Your task to perform on an android device: Open Reddit.com Image 0: 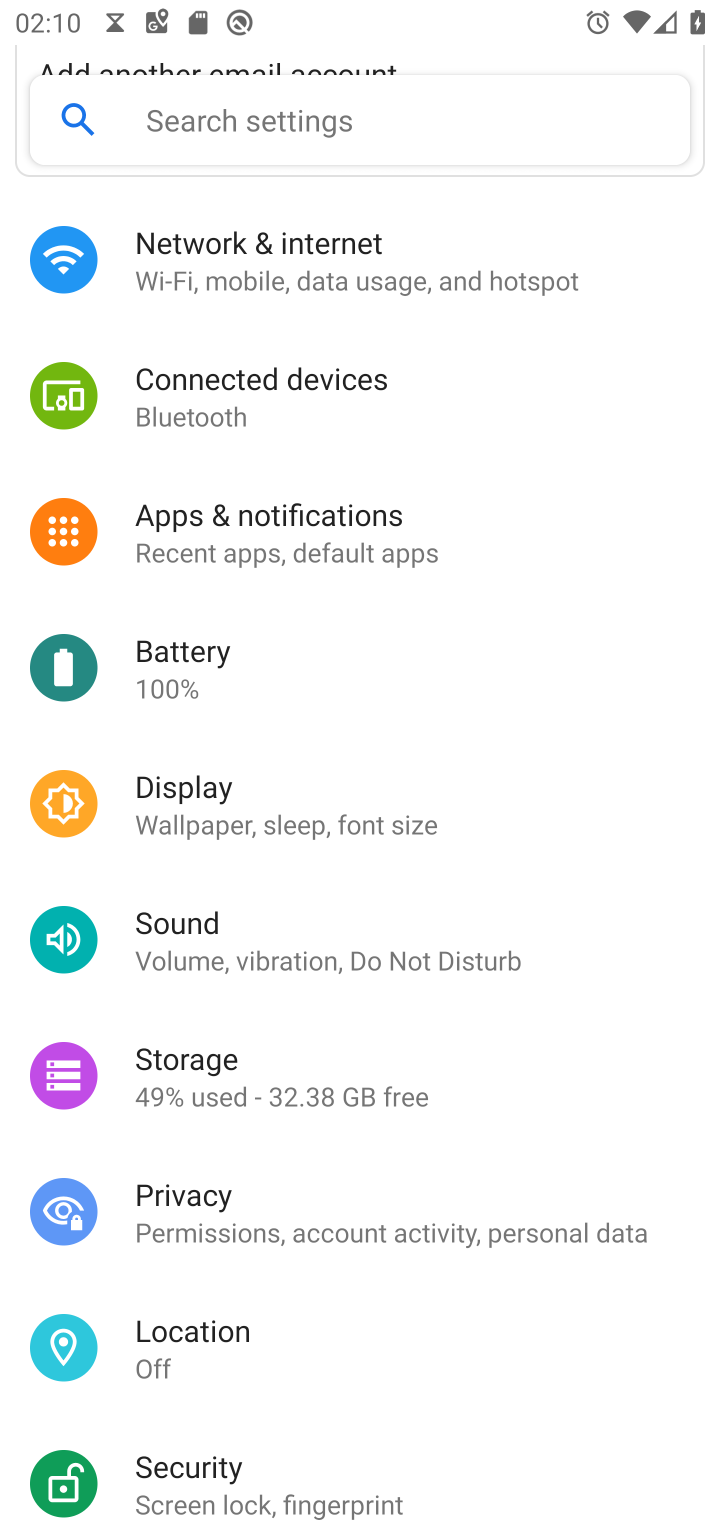
Step 0: press home button
Your task to perform on an android device: Open Reddit.com Image 1: 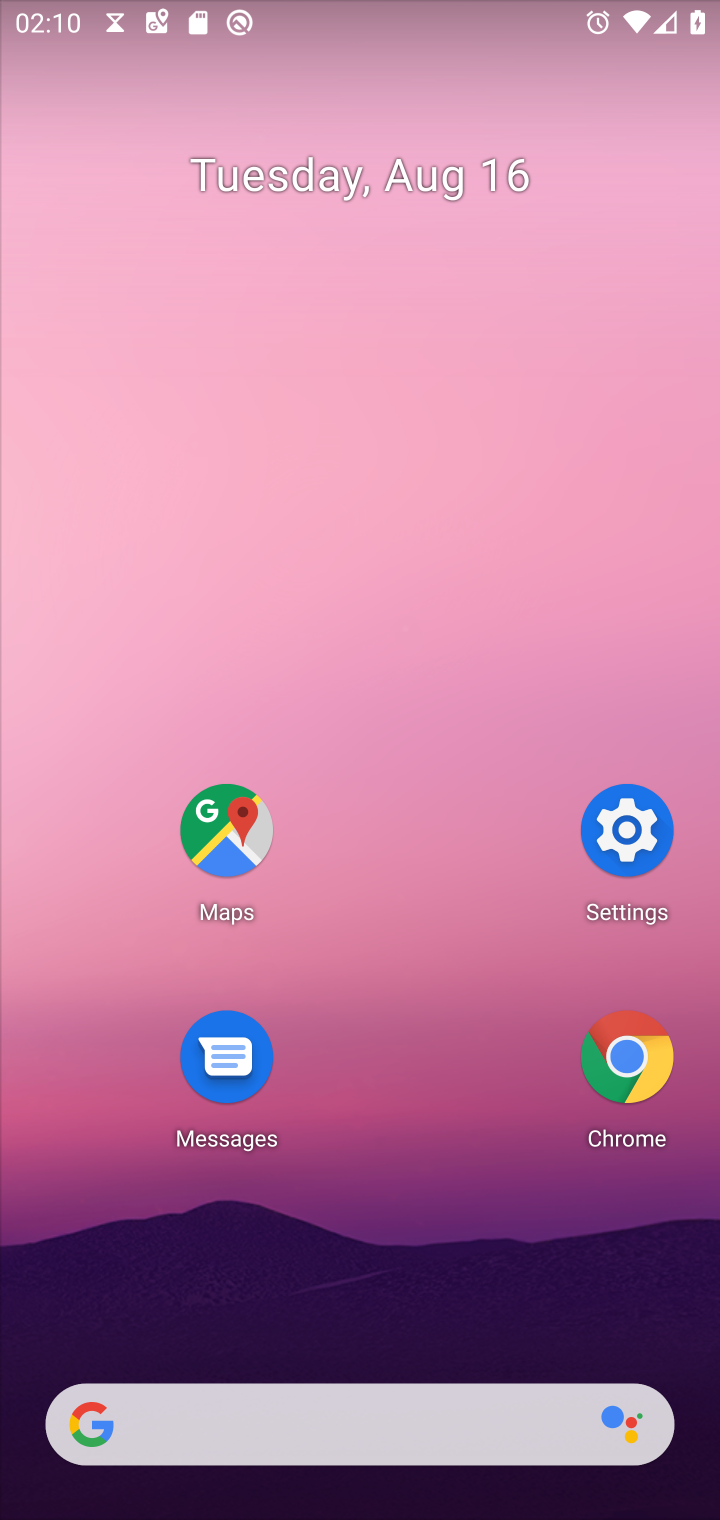
Step 1: click (646, 1044)
Your task to perform on an android device: Open Reddit.com Image 2: 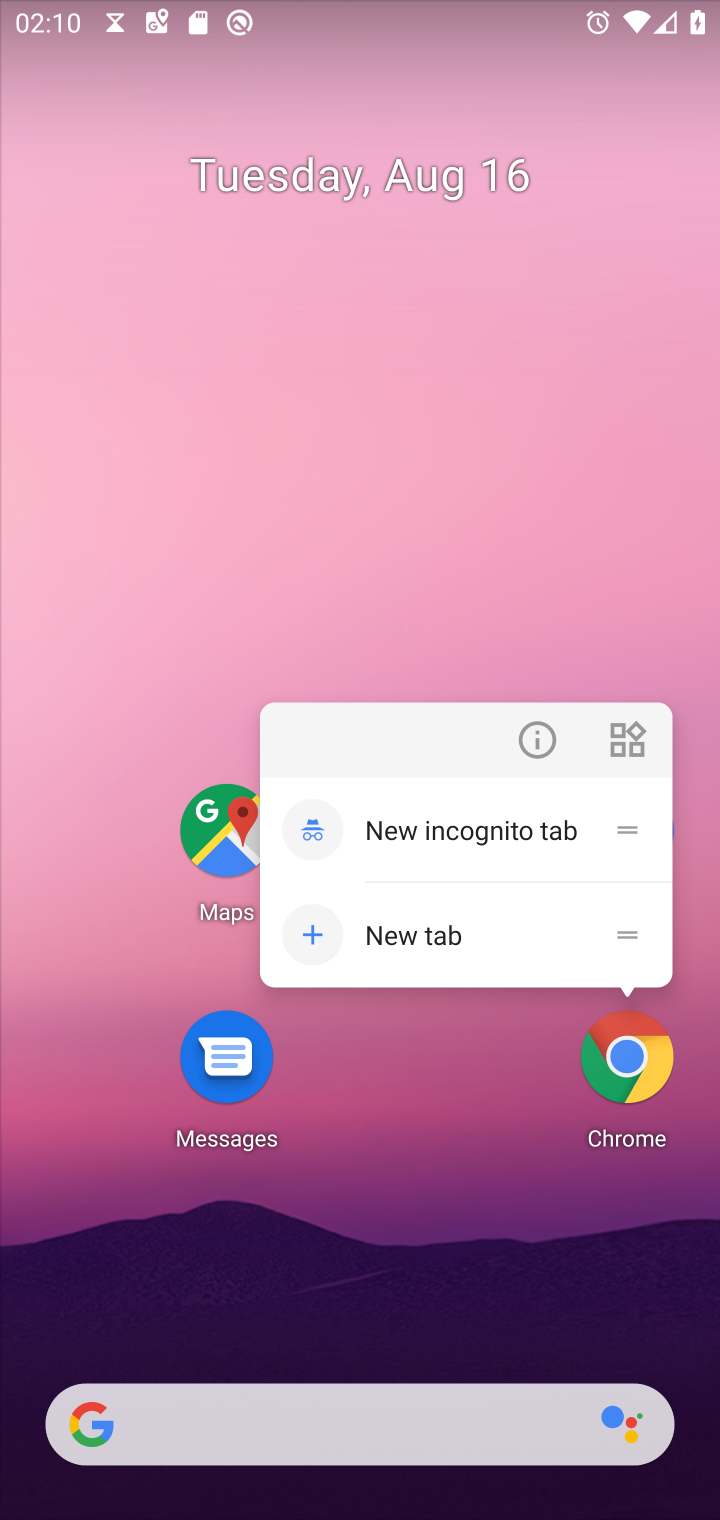
Step 2: click (646, 1047)
Your task to perform on an android device: Open Reddit.com Image 3: 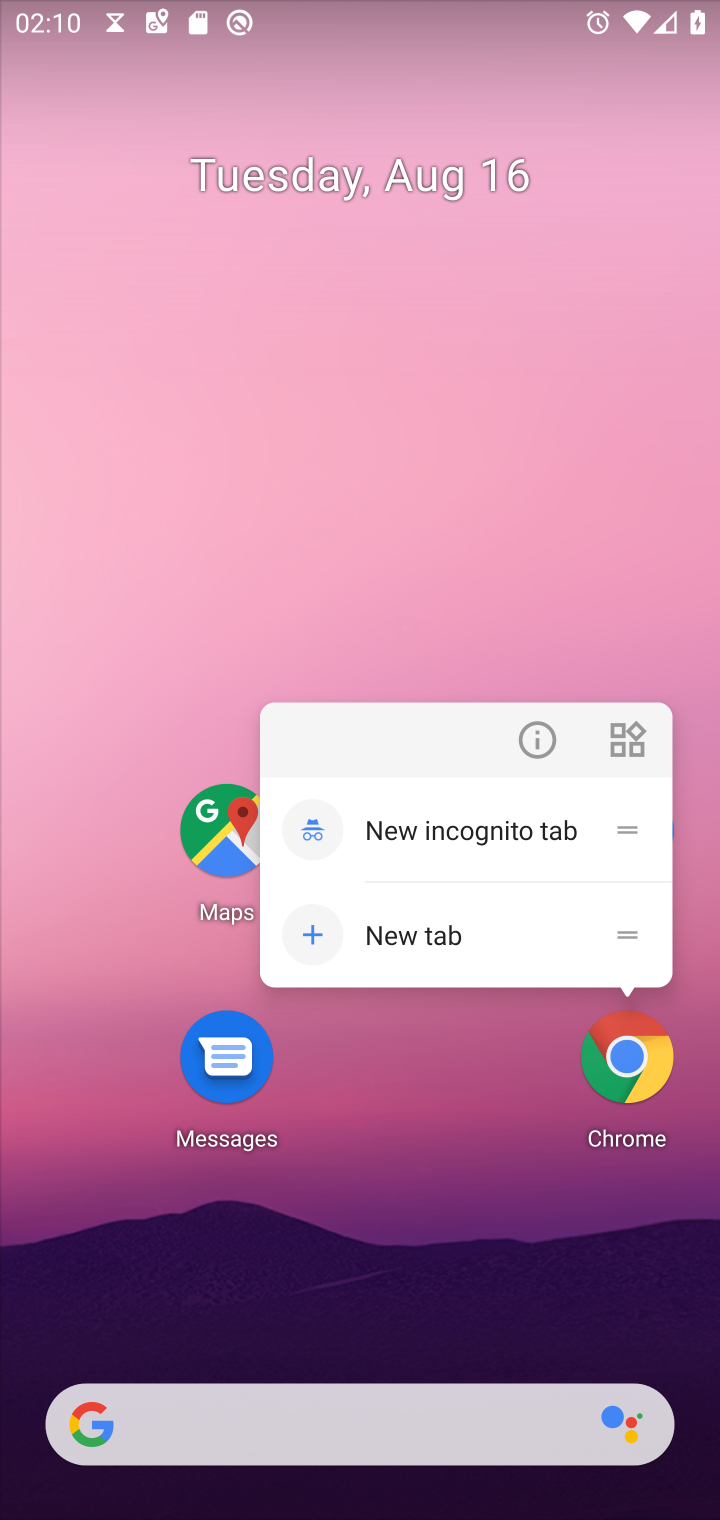
Step 3: click (617, 1058)
Your task to perform on an android device: Open Reddit.com Image 4: 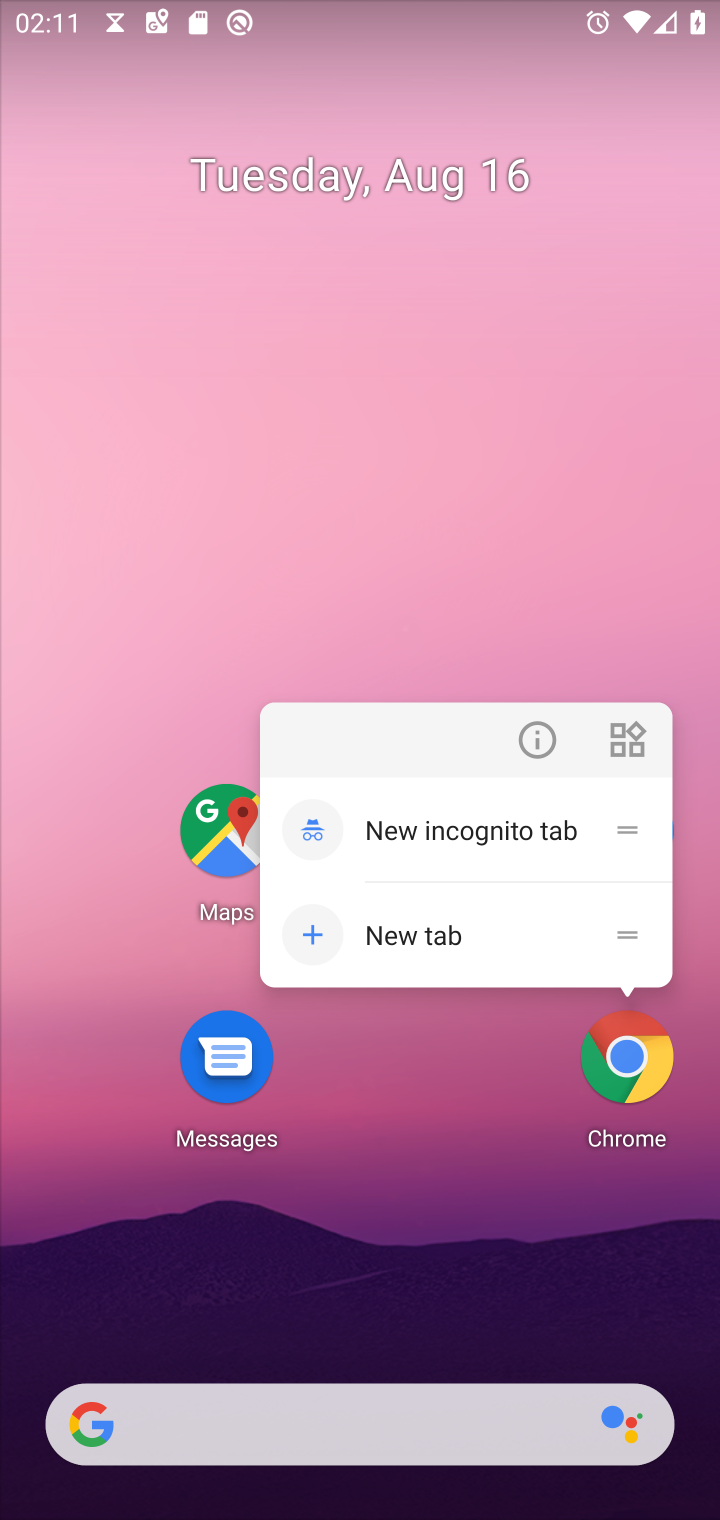
Step 4: click (641, 1059)
Your task to perform on an android device: Open Reddit.com Image 5: 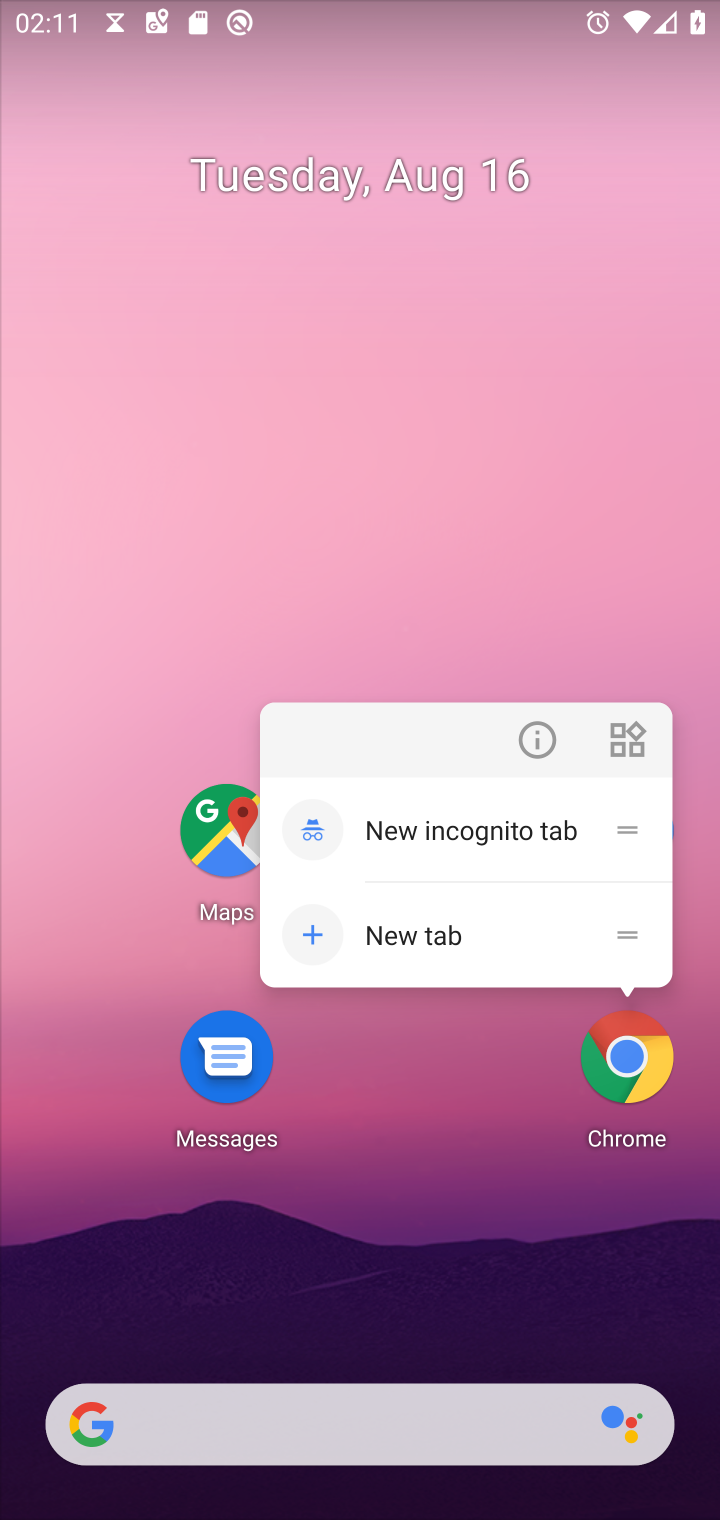
Step 5: click (625, 1086)
Your task to perform on an android device: Open Reddit.com Image 6: 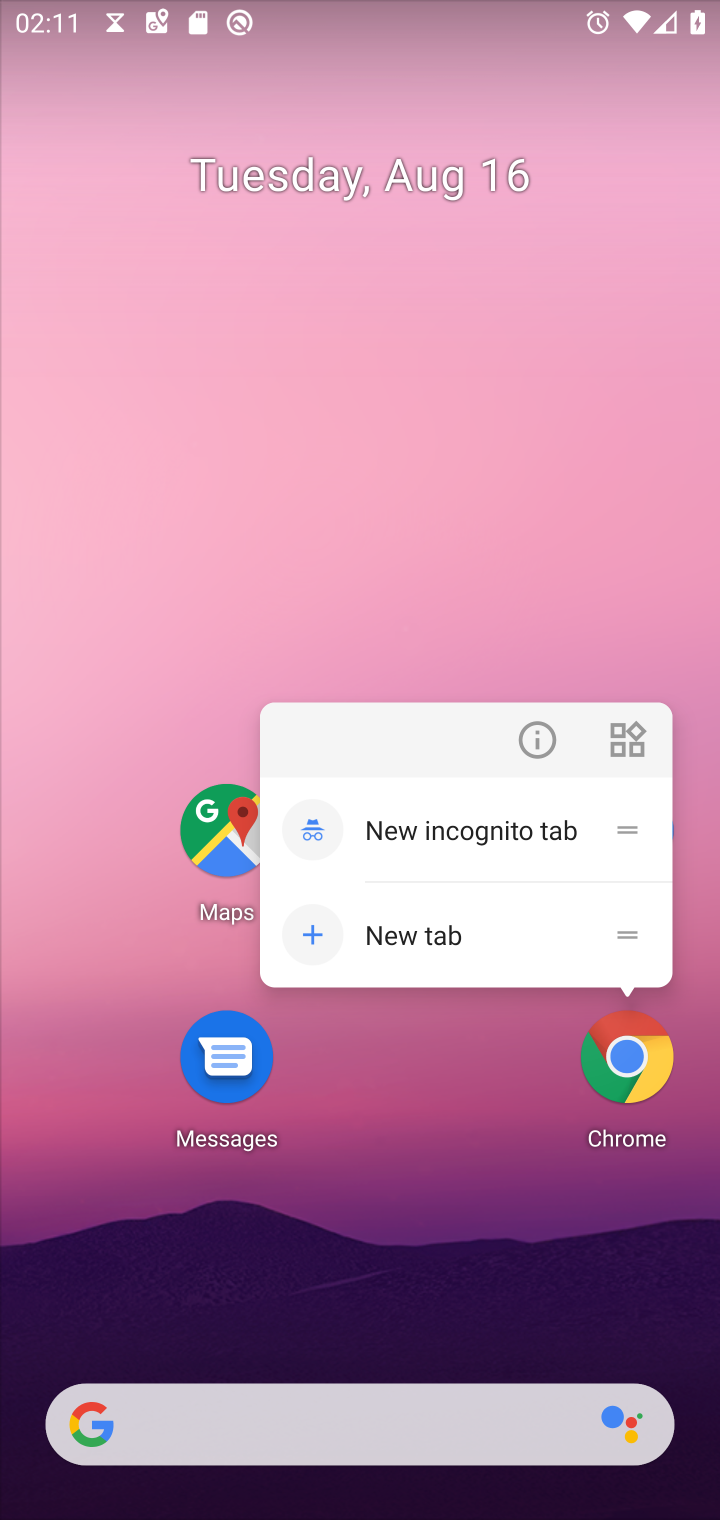
Step 6: click (632, 1062)
Your task to perform on an android device: Open Reddit.com Image 7: 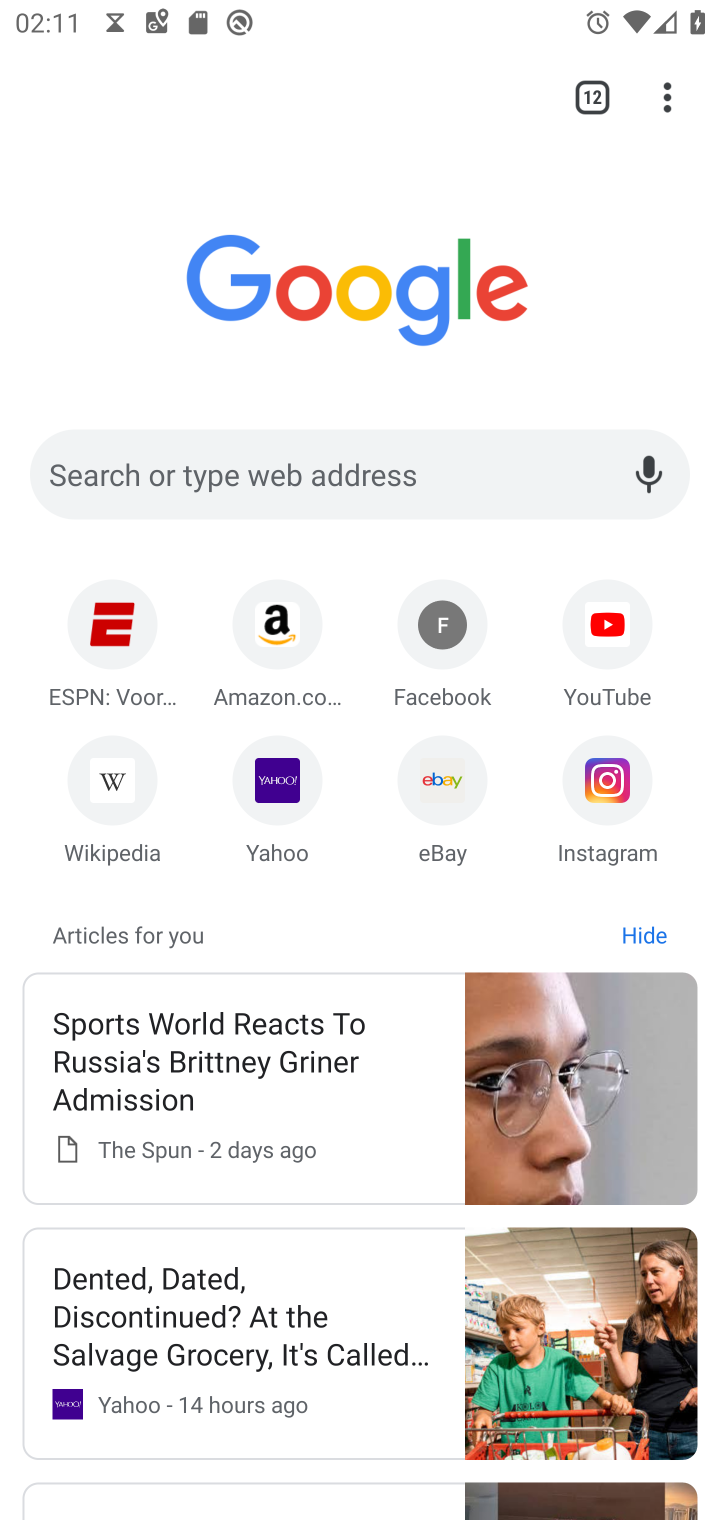
Step 7: drag from (669, 86) to (364, 192)
Your task to perform on an android device: Open Reddit.com Image 8: 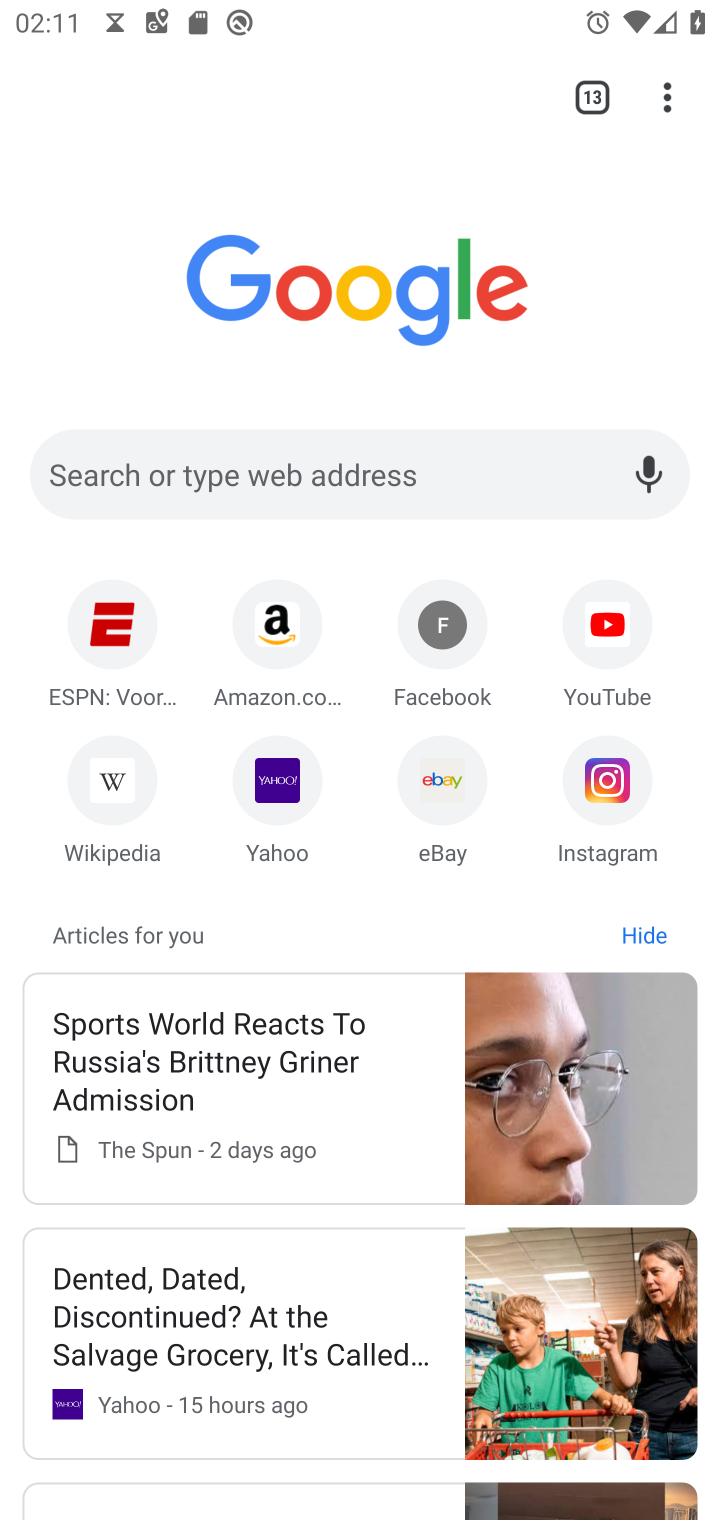
Step 8: click (124, 465)
Your task to perform on an android device: Open Reddit.com Image 9: 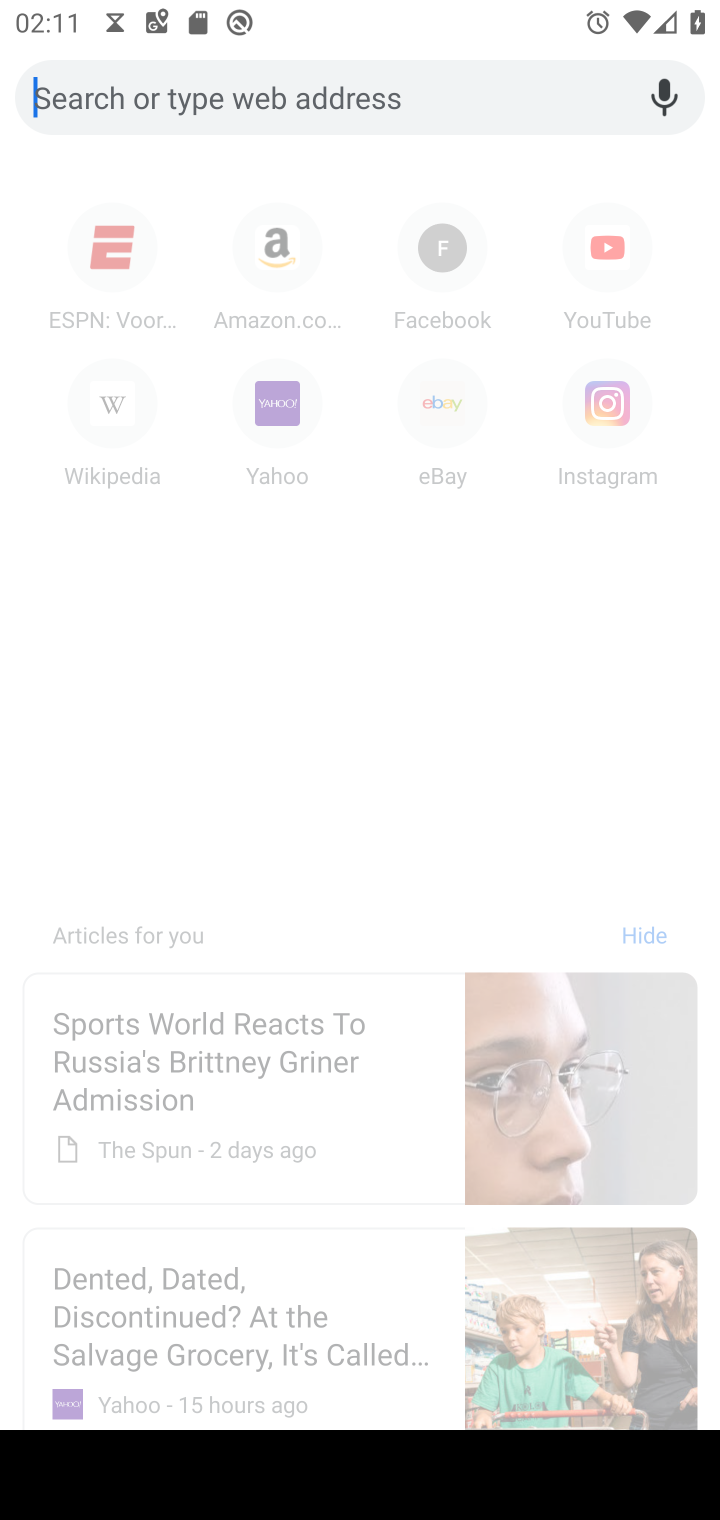
Step 9: type "Reddit.com"
Your task to perform on an android device: Open Reddit.com Image 10: 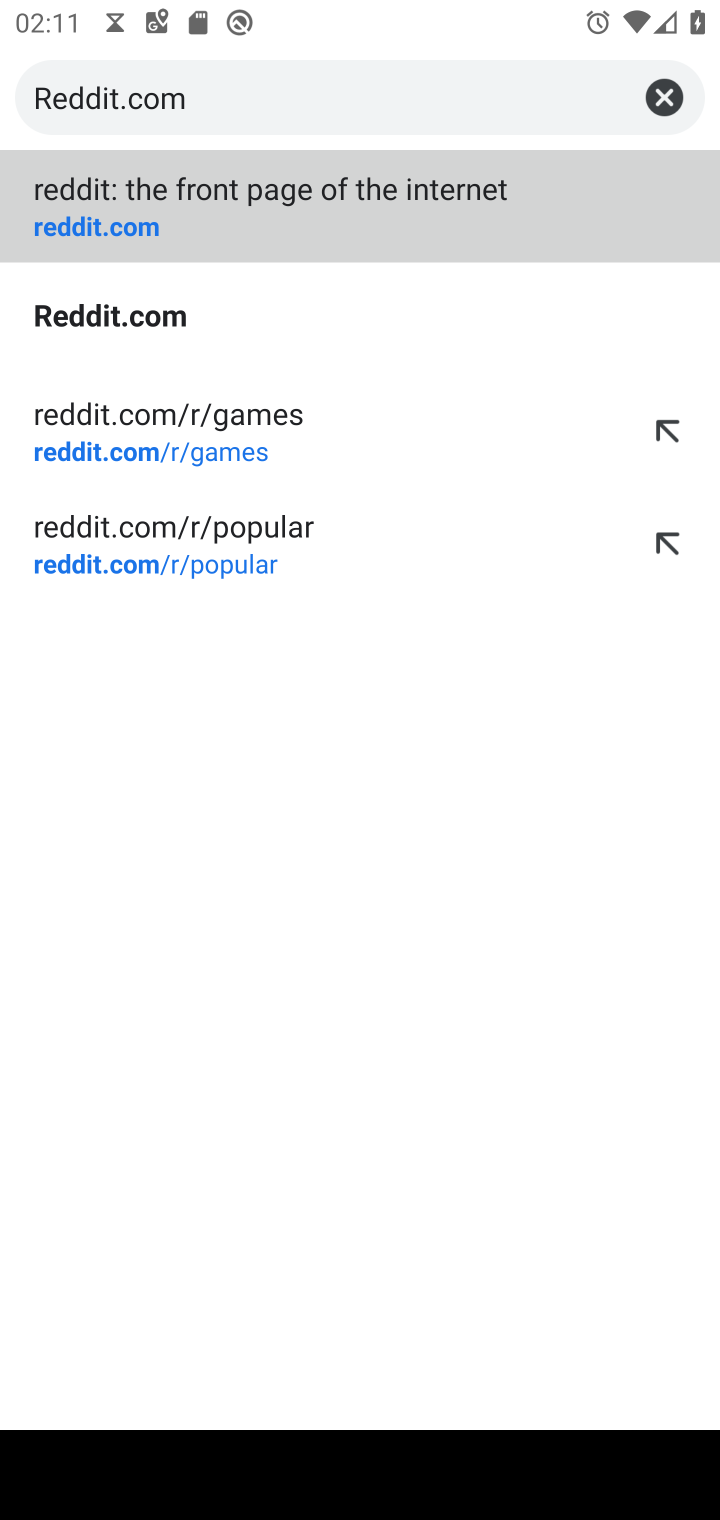
Step 10: click (168, 201)
Your task to perform on an android device: Open Reddit.com Image 11: 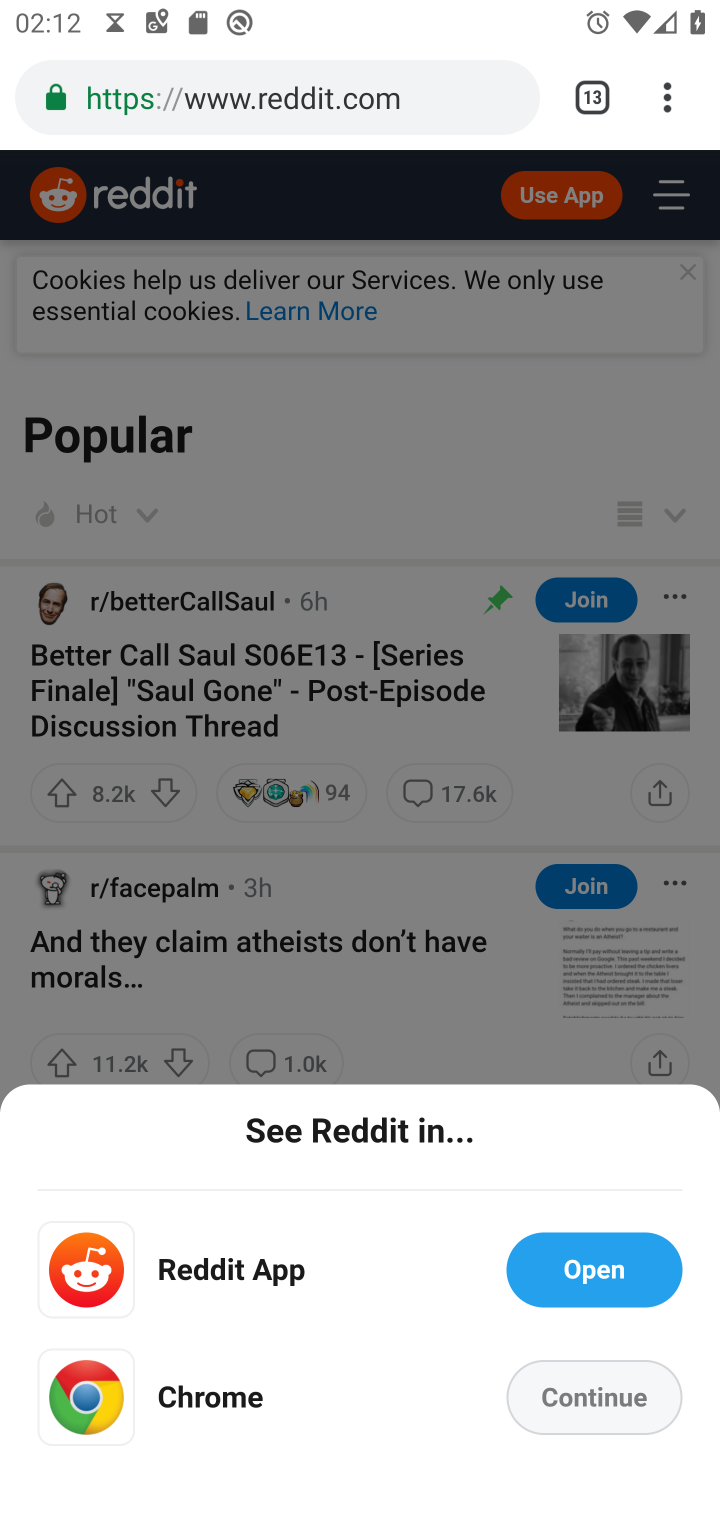
Step 11: task complete